Your task to perform on an android device: Find coffee shops on Maps Image 0: 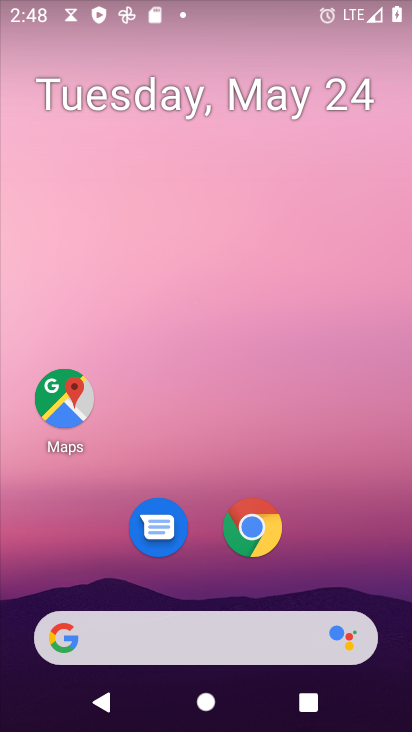
Step 0: click (71, 398)
Your task to perform on an android device: Find coffee shops on Maps Image 1: 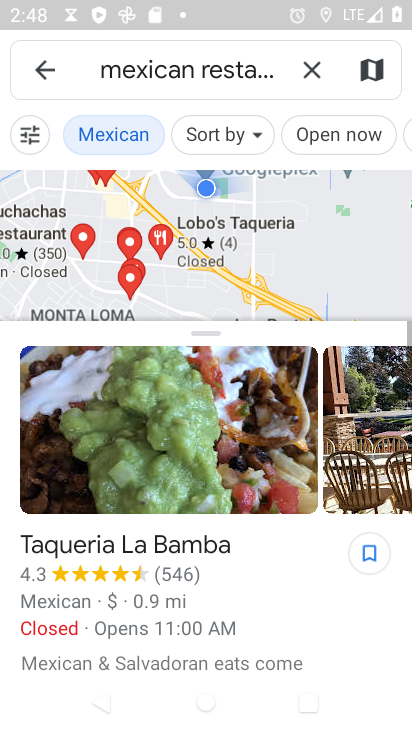
Step 1: click (309, 62)
Your task to perform on an android device: Find coffee shops on Maps Image 2: 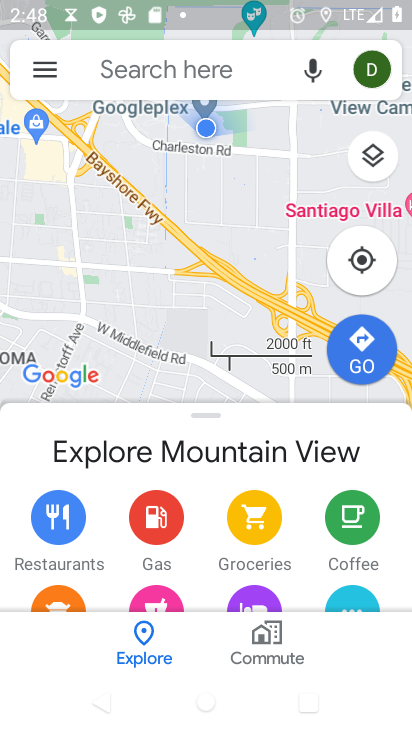
Step 2: click (270, 72)
Your task to perform on an android device: Find coffee shops on Maps Image 3: 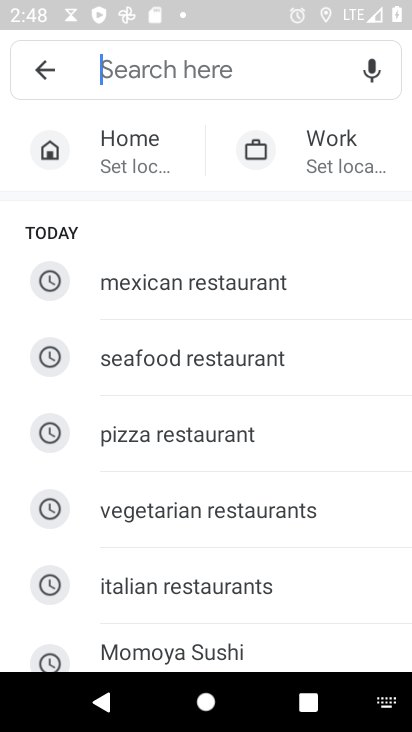
Step 3: type "coffee"
Your task to perform on an android device: Find coffee shops on Maps Image 4: 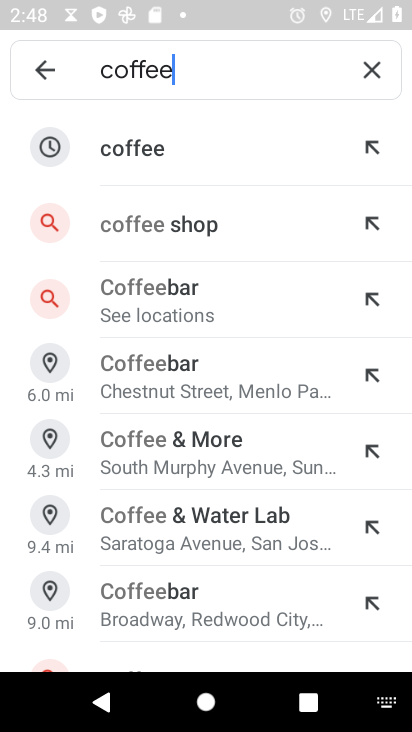
Step 4: click (227, 236)
Your task to perform on an android device: Find coffee shops on Maps Image 5: 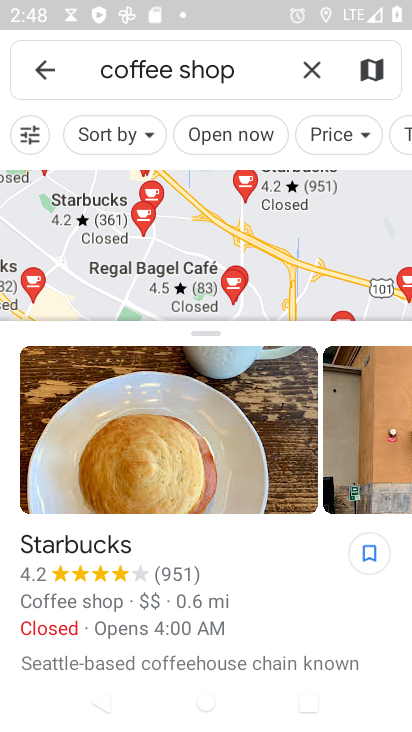
Step 5: task complete